Your task to perform on an android device: Go to Yahoo.com Image 0: 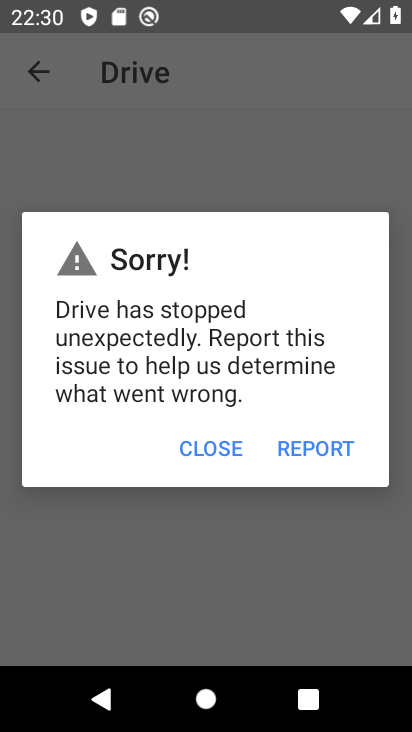
Step 0: click (215, 443)
Your task to perform on an android device: Go to Yahoo.com Image 1: 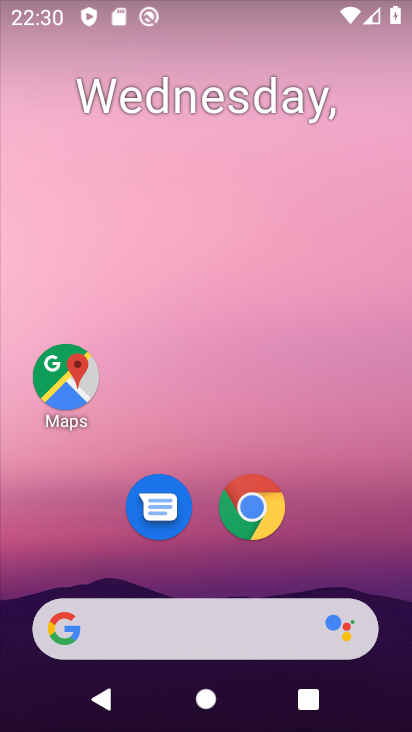
Step 1: drag from (326, 563) to (278, 220)
Your task to perform on an android device: Go to Yahoo.com Image 2: 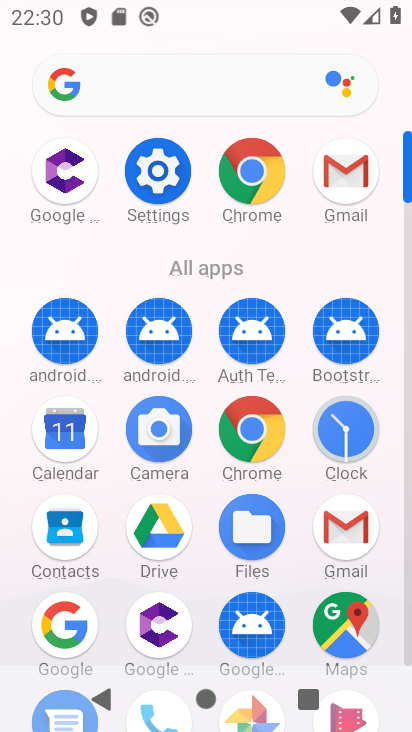
Step 2: click (240, 165)
Your task to perform on an android device: Go to Yahoo.com Image 3: 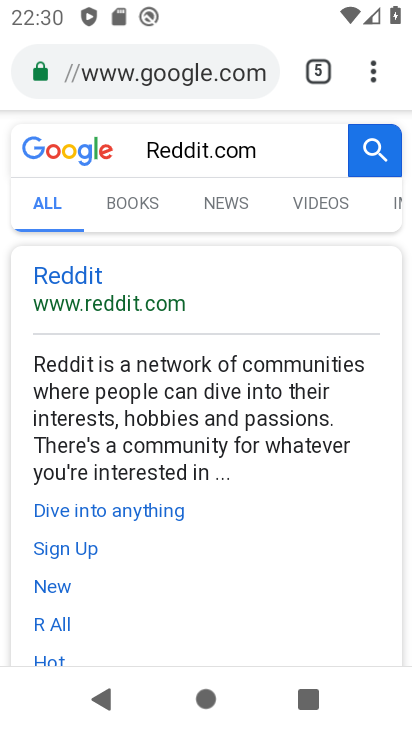
Step 3: click (355, 68)
Your task to perform on an android device: Go to Yahoo.com Image 4: 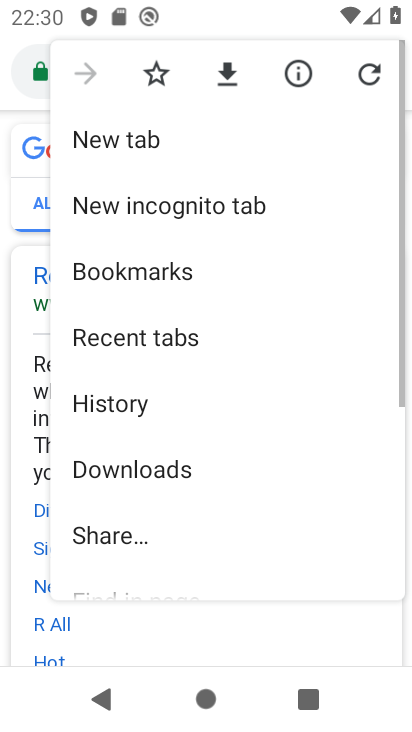
Step 4: click (102, 138)
Your task to perform on an android device: Go to Yahoo.com Image 5: 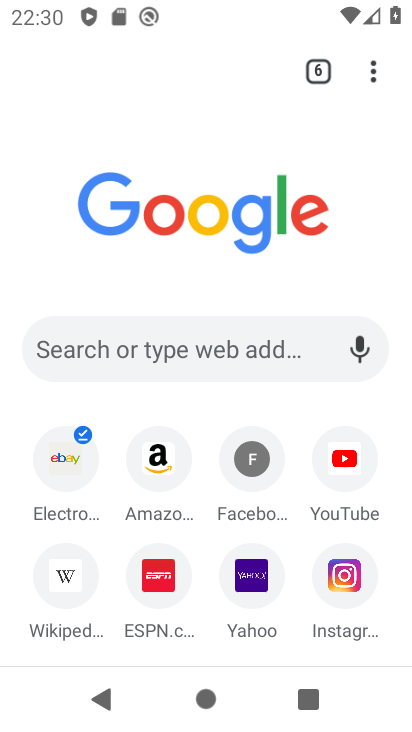
Step 5: click (251, 560)
Your task to perform on an android device: Go to Yahoo.com Image 6: 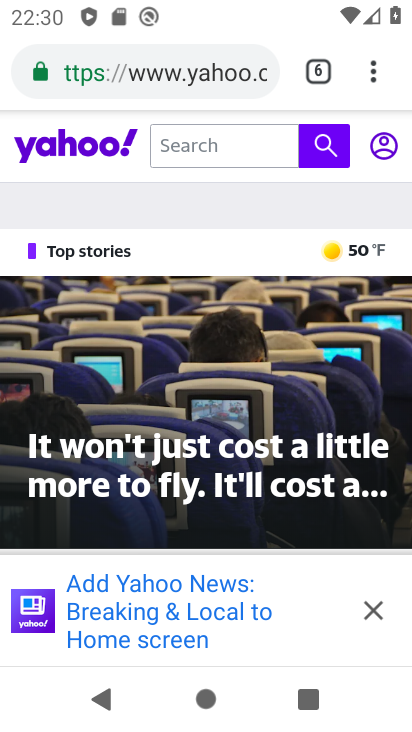
Step 6: task complete